Your task to perform on an android device: turn off javascript in the chrome app Image 0: 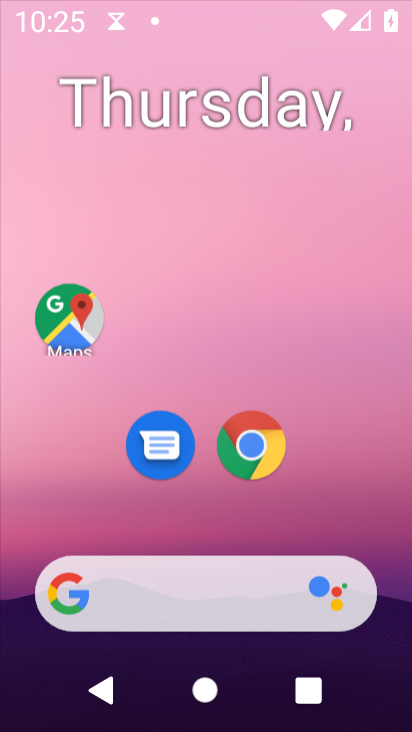
Step 0: click (238, 98)
Your task to perform on an android device: turn off javascript in the chrome app Image 1: 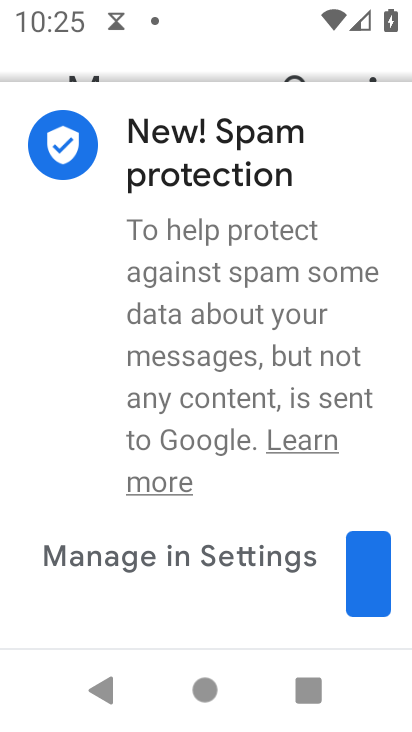
Step 1: drag from (234, 724) to (209, 258)
Your task to perform on an android device: turn off javascript in the chrome app Image 2: 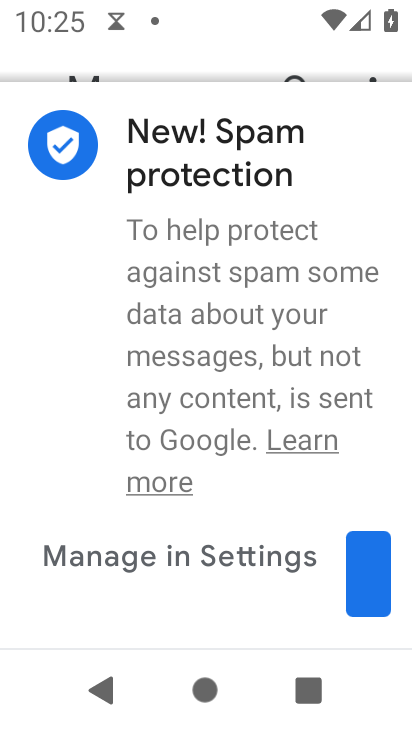
Step 2: press home button
Your task to perform on an android device: turn off javascript in the chrome app Image 3: 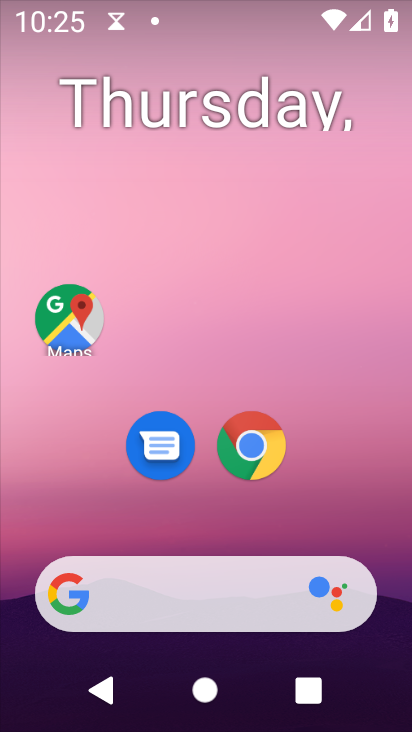
Step 3: click (247, 444)
Your task to perform on an android device: turn off javascript in the chrome app Image 4: 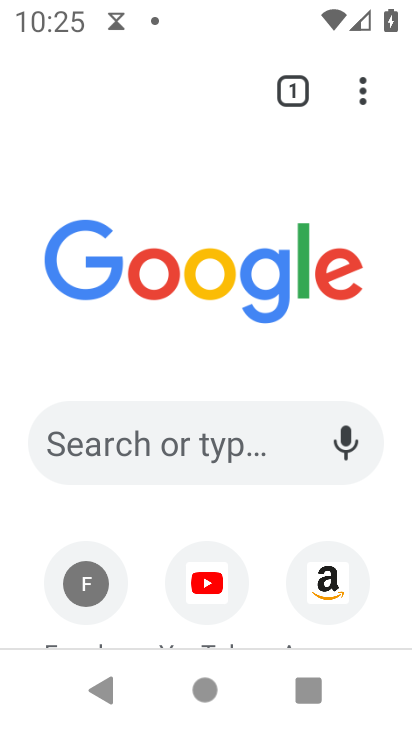
Step 4: click (362, 103)
Your task to perform on an android device: turn off javascript in the chrome app Image 5: 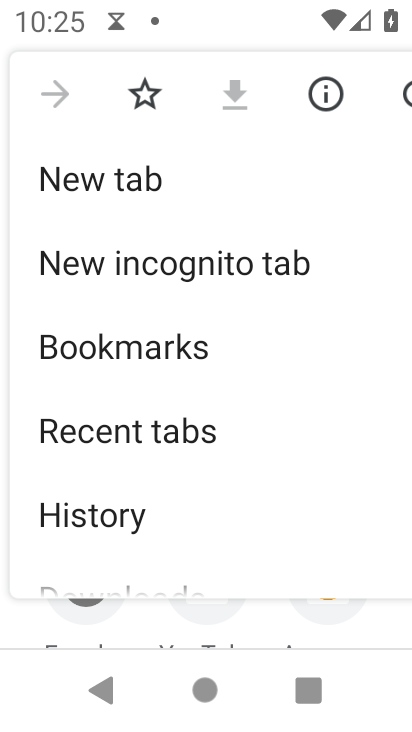
Step 5: drag from (209, 576) to (214, 154)
Your task to perform on an android device: turn off javascript in the chrome app Image 6: 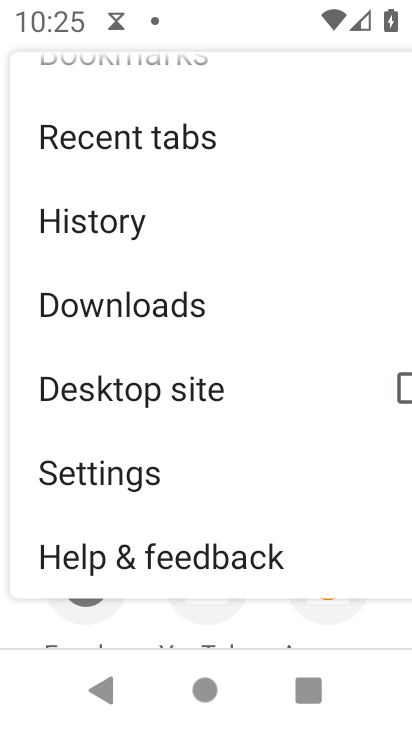
Step 6: click (132, 474)
Your task to perform on an android device: turn off javascript in the chrome app Image 7: 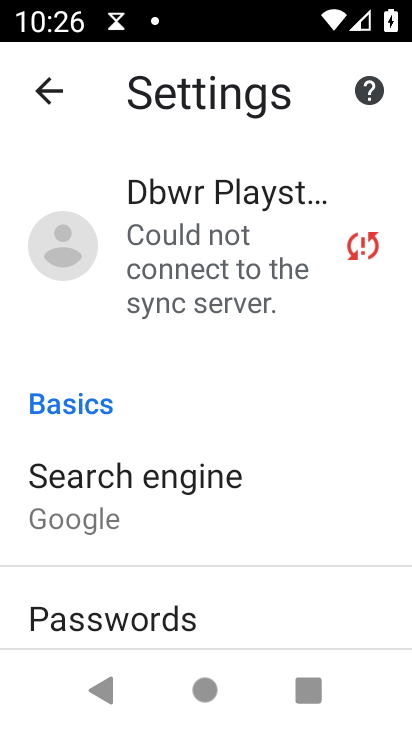
Step 7: drag from (252, 623) to (266, 360)
Your task to perform on an android device: turn off javascript in the chrome app Image 8: 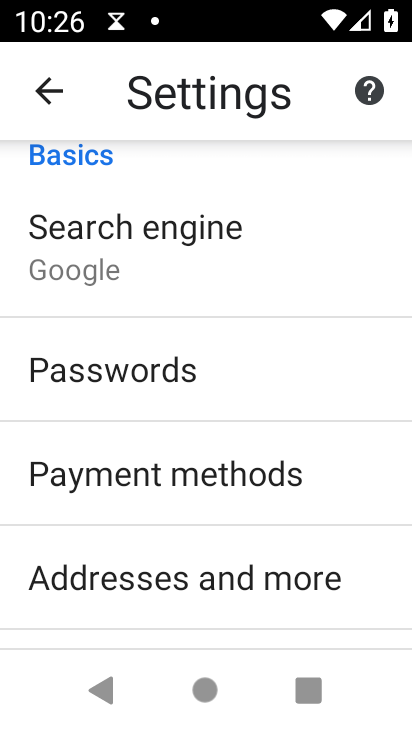
Step 8: drag from (263, 616) to (264, 268)
Your task to perform on an android device: turn off javascript in the chrome app Image 9: 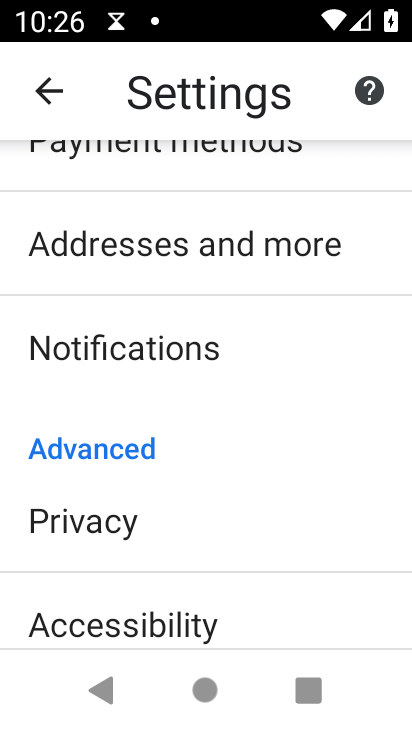
Step 9: drag from (240, 636) to (254, 218)
Your task to perform on an android device: turn off javascript in the chrome app Image 10: 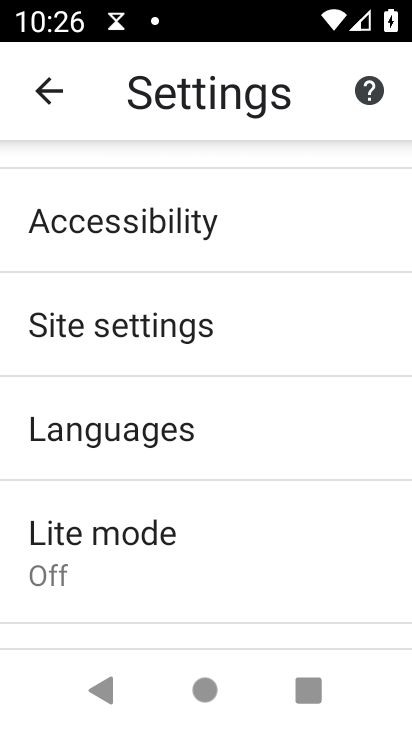
Step 10: click (126, 325)
Your task to perform on an android device: turn off javascript in the chrome app Image 11: 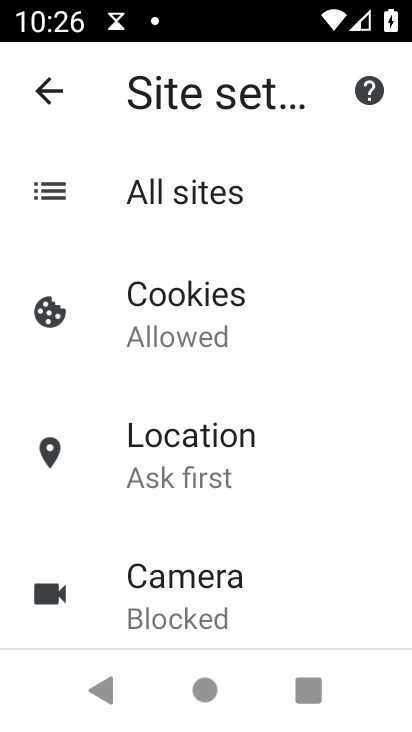
Step 11: drag from (274, 621) to (275, 299)
Your task to perform on an android device: turn off javascript in the chrome app Image 12: 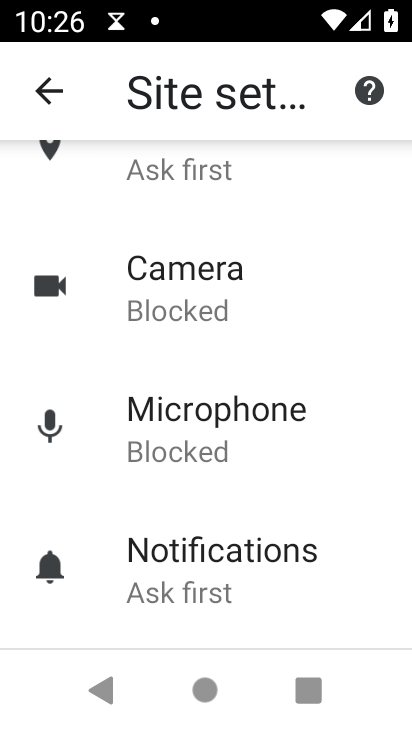
Step 12: drag from (275, 627) to (270, 236)
Your task to perform on an android device: turn off javascript in the chrome app Image 13: 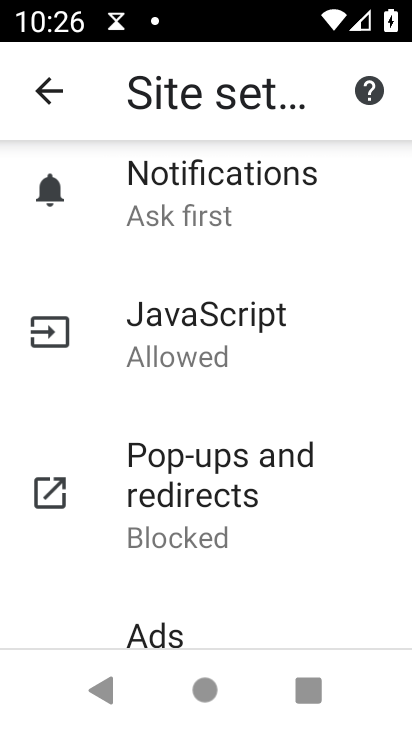
Step 13: click (169, 332)
Your task to perform on an android device: turn off javascript in the chrome app Image 14: 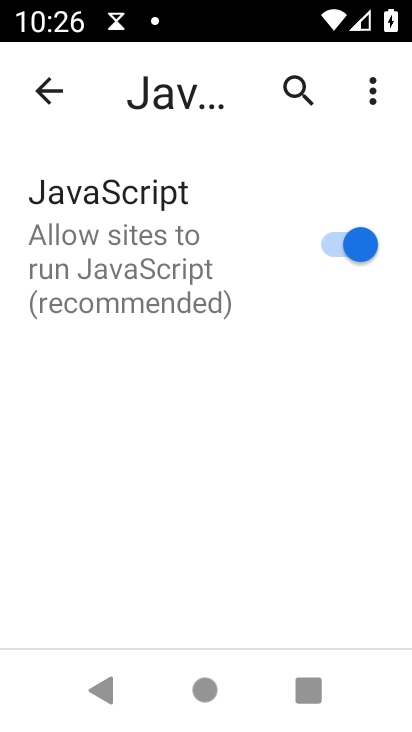
Step 14: click (331, 237)
Your task to perform on an android device: turn off javascript in the chrome app Image 15: 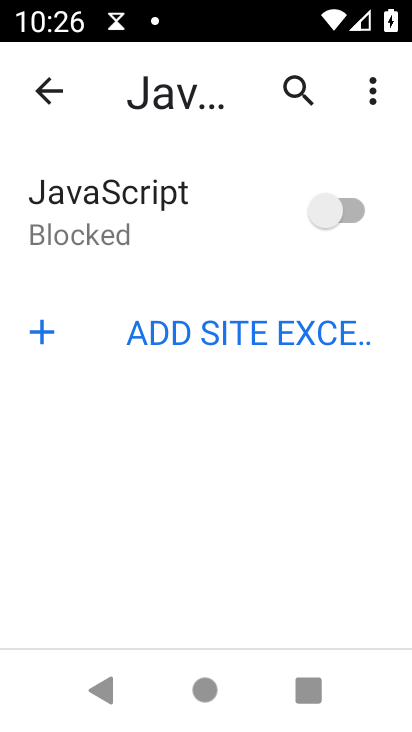
Step 15: task complete